Your task to perform on an android device: turn on data saver in the chrome app Image 0: 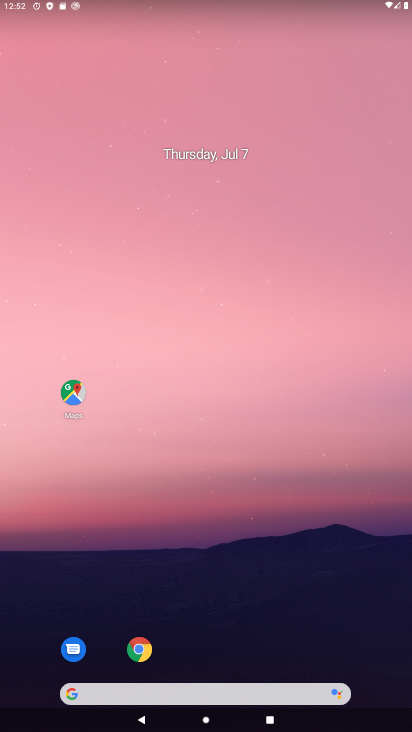
Step 0: click (151, 648)
Your task to perform on an android device: turn on data saver in the chrome app Image 1: 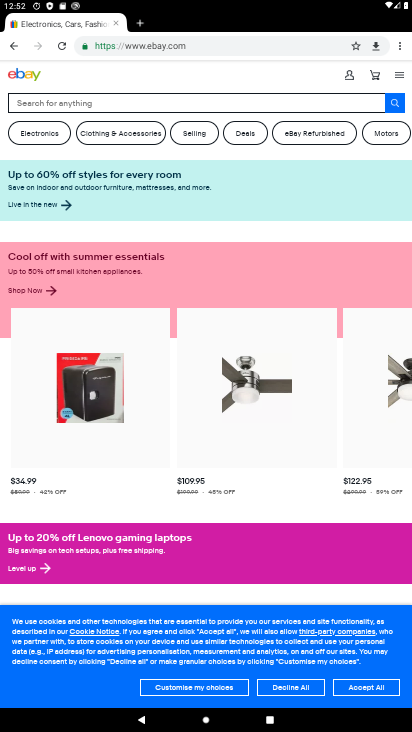
Step 1: click (399, 40)
Your task to perform on an android device: turn on data saver in the chrome app Image 2: 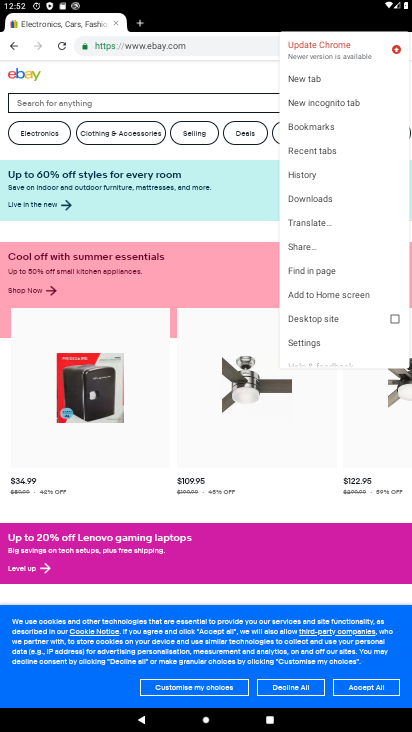
Step 2: click (300, 340)
Your task to perform on an android device: turn on data saver in the chrome app Image 3: 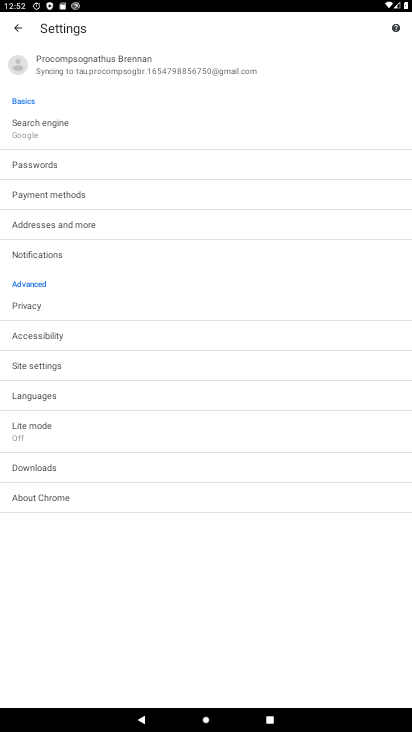
Step 3: click (32, 421)
Your task to perform on an android device: turn on data saver in the chrome app Image 4: 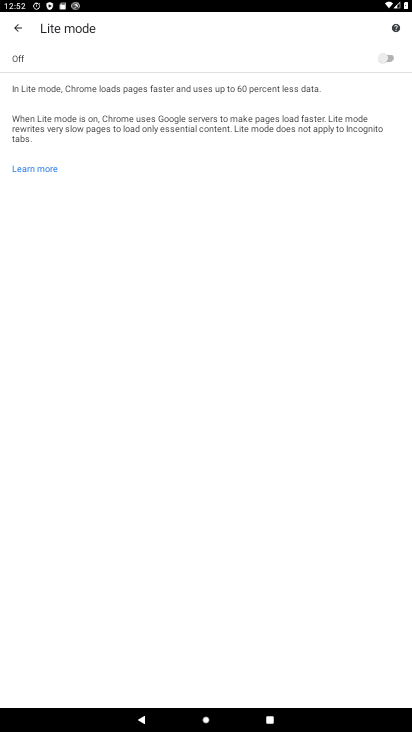
Step 4: click (382, 58)
Your task to perform on an android device: turn on data saver in the chrome app Image 5: 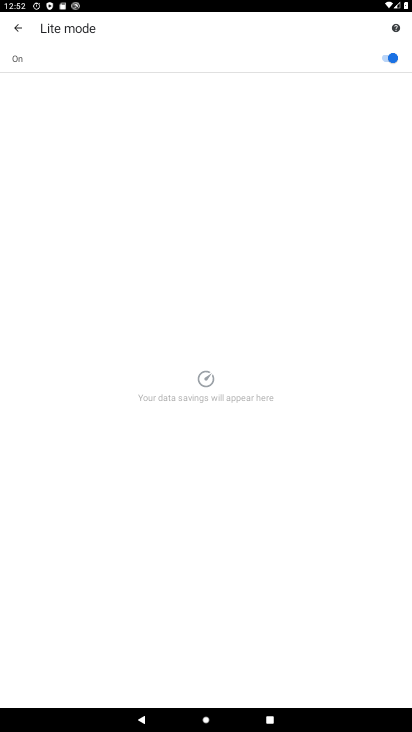
Step 5: task complete